Your task to perform on an android device: Open the map Image 0: 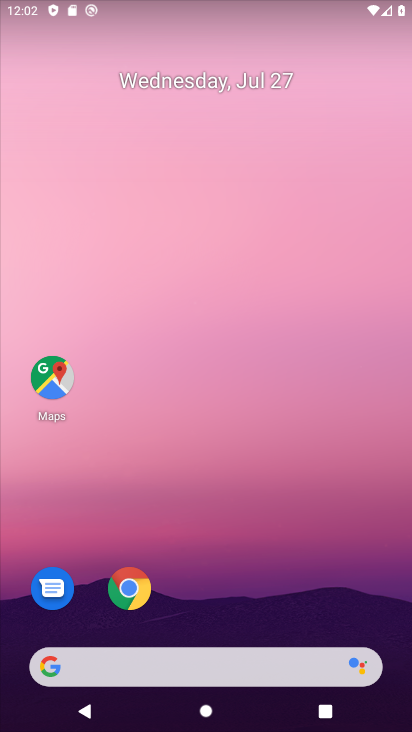
Step 0: drag from (238, 631) to (180, 76)
Your task to perform on an android device: Open the map Image 1: 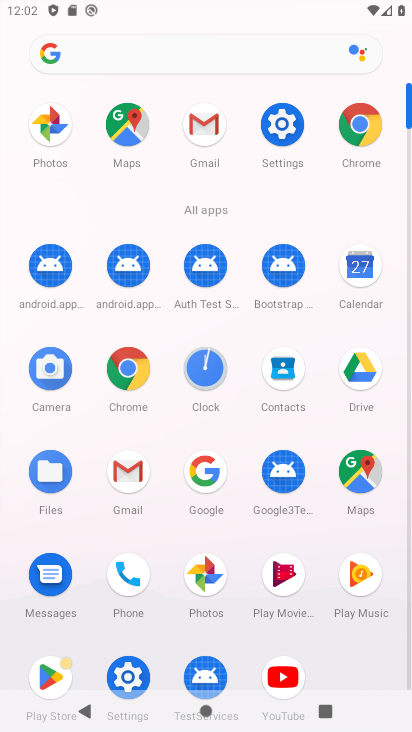
Step 1: click (120, 138)
Your task to perform on an android device: Open the map Image 2: 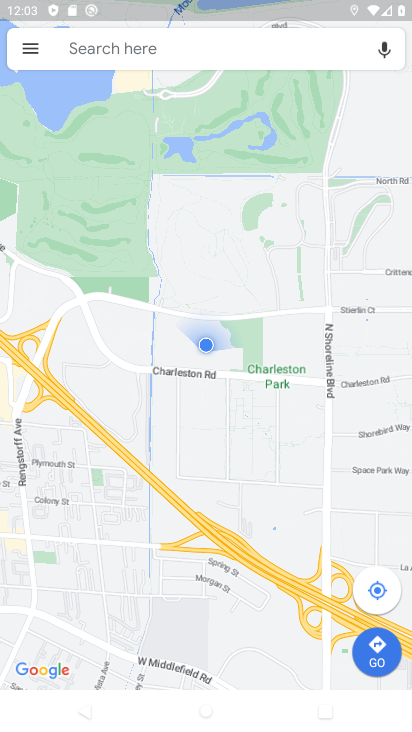
Step 2: task complete